Your task to perform on an android device: turn off notifications in google photos Image 0: 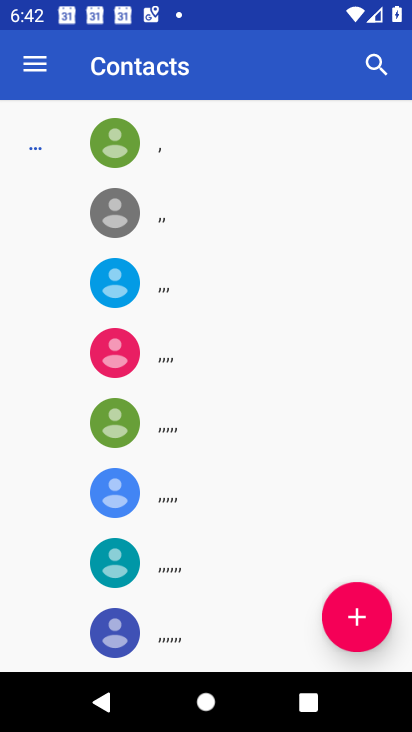
Step 0: press home button
Your task to perform on an android device: turn off notifications in google photos Image 1: 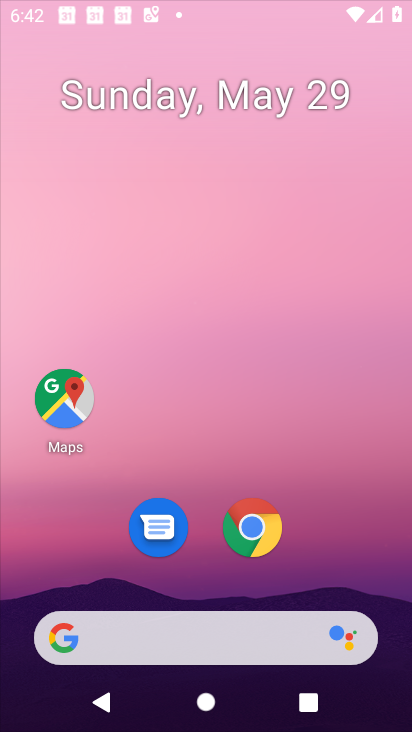
Step 1: drag from (341, 560) to (332, 78)
Your task to perform on an android device: turn off notifications in google photos Image 2: 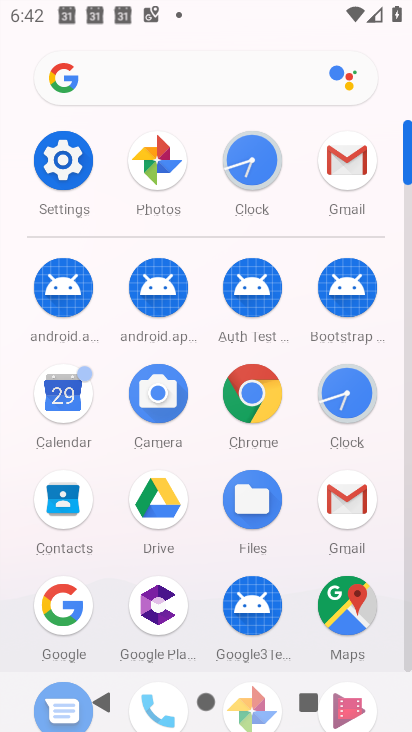
Step 2: drag from (259, 666) to (216, 65)
Your task to perform on an android device: turn off notifications in google photos Image 3: 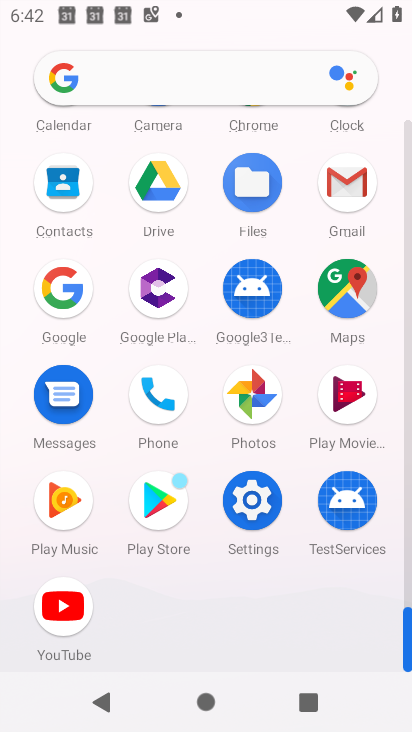
Step 3: click (275, 409)
Your task to perform on an android device: turn off notifications in google photos Image 4: 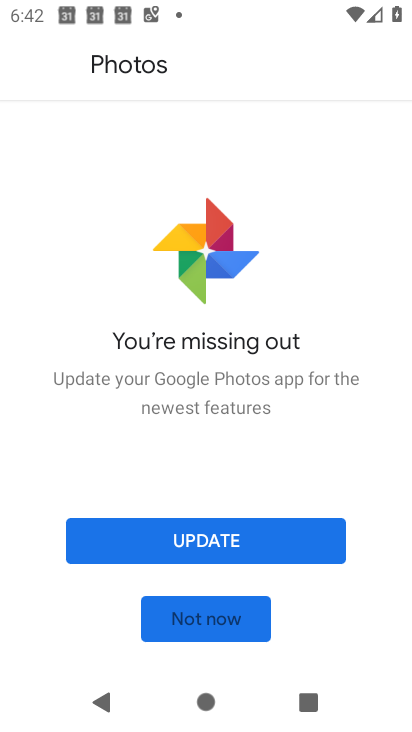
Step 4: click (50, 56)
Your task to perform on an android device: turn off notifications in google photos Image 5: 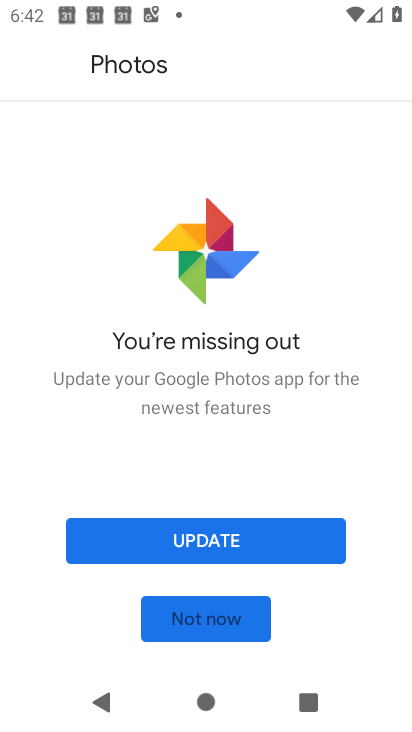
Step 5: click (183, 530)
Your task to perform on an android device: turn off notifications in google photos Image 6: 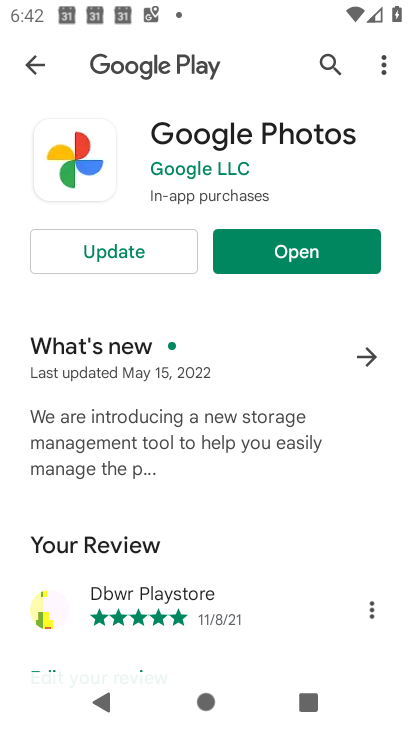
Step 6: click (109, 223)
Your task to perform on an android device: turn off notifications in google photos Image 7: 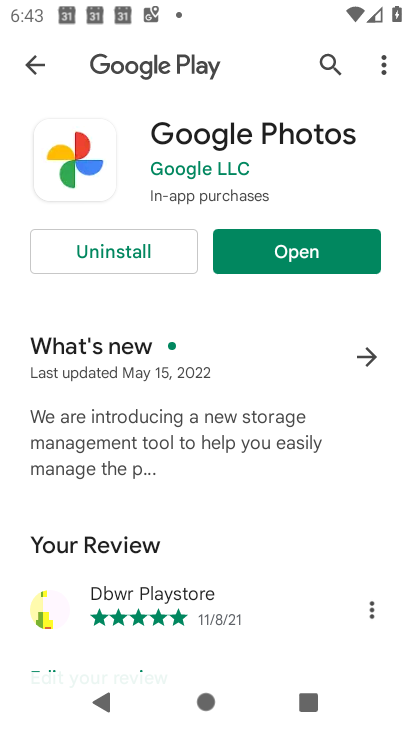
Step 7: click (346, 261)
Your task to perform on an android device: turn off notifications in google photos Image 8: 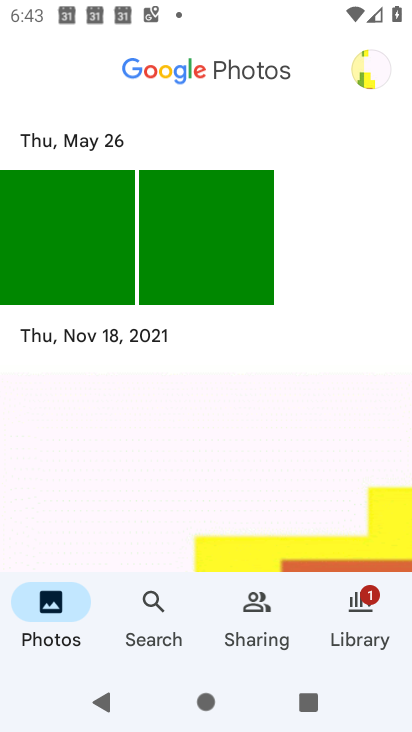
Step 8: click (374, 63)
Your task to perform on an android device: turn off notifications in google photos Image 9: 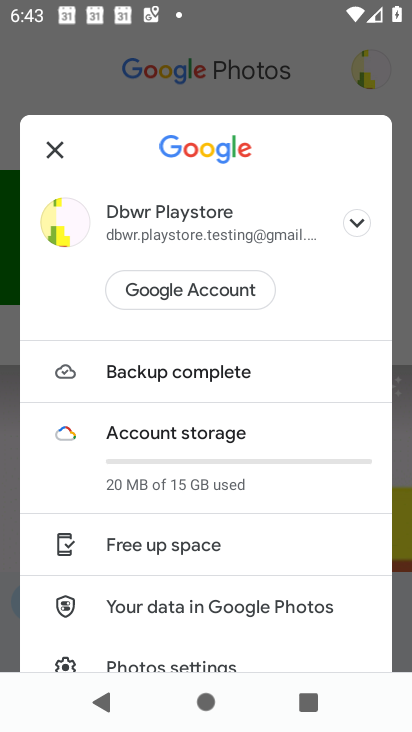
Step 9: drag from (196, 623) to (232, 225)
Your task to perform on an android device: turn off notifications in google photos Image 10: 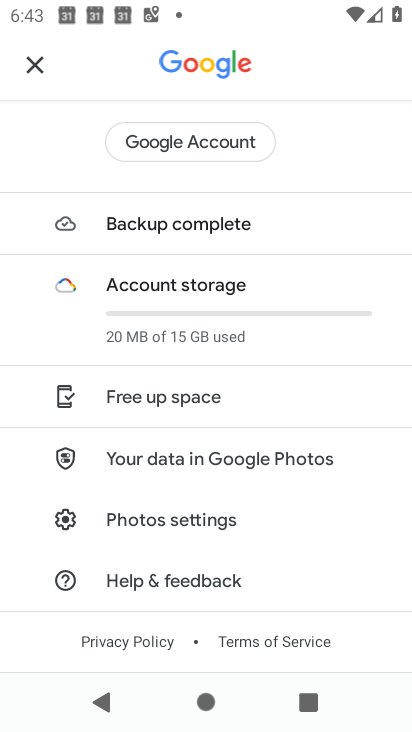
Step 10: click (212, 531)
Your task to perform on an android device: turn off notifications in google photos Image 11: 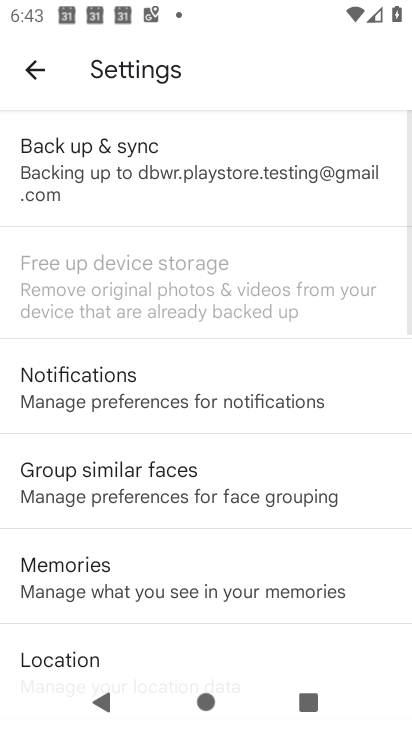
Step 11: click (133, 383)
Your task to perform on an android device: turn off notifications in google photos Image 12: 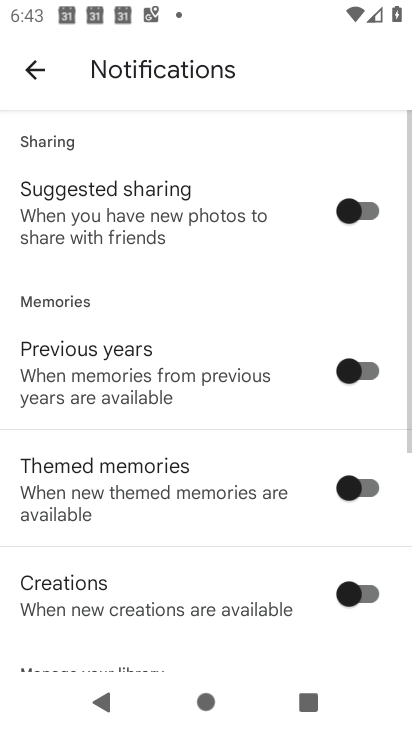
Step 12: task complete